Your task to perform on an android device: Search for hotels in Orlando Image 0: 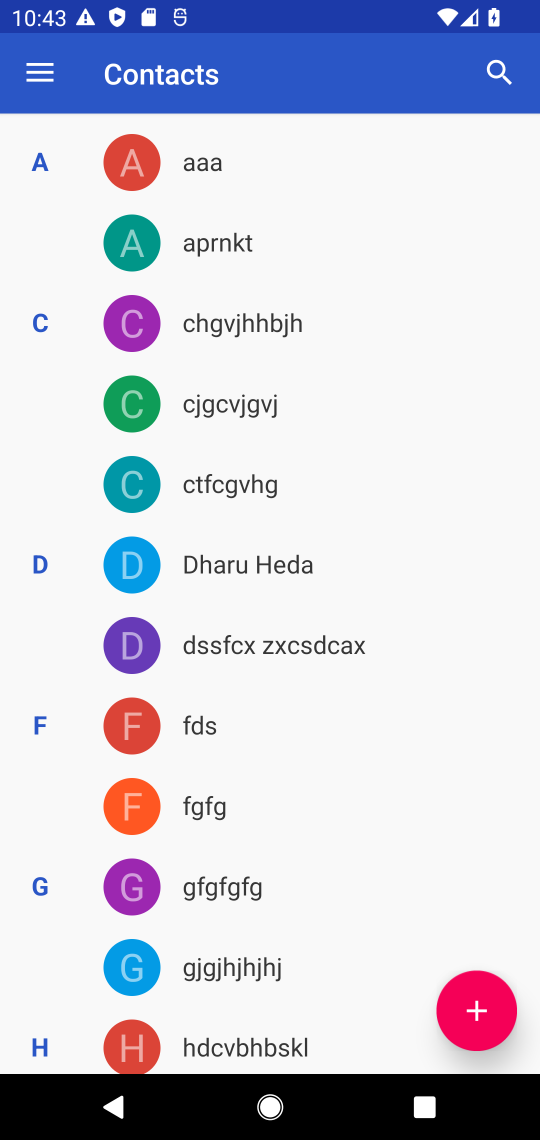
Step 0: press home button
Your task to perform on an android device: Search for hotels in Orlando Image 1: 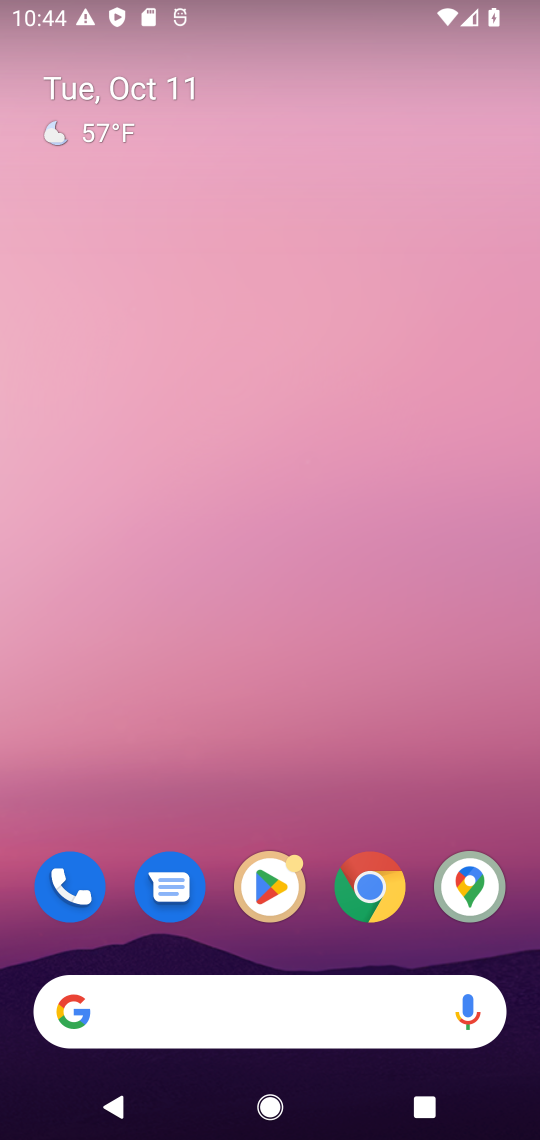
Step 1: click (165, 1020)
Your task to perform on an android device: Search for hotels in Orlando Image 2: 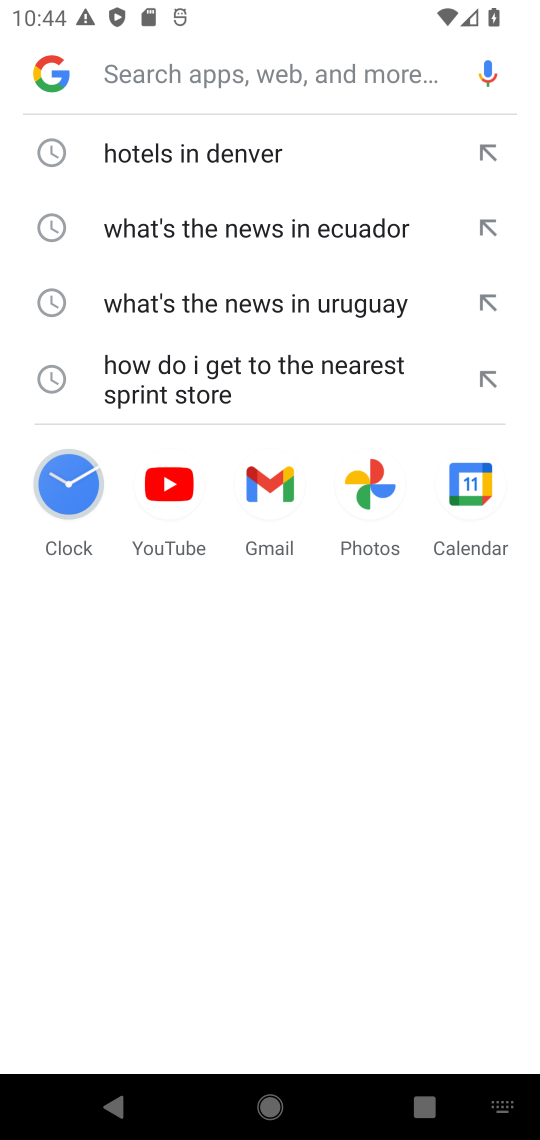
Step 2: type "hotels in Orlando"
Your task to perform on an android device: Search for hotels in Orlando Image 3: 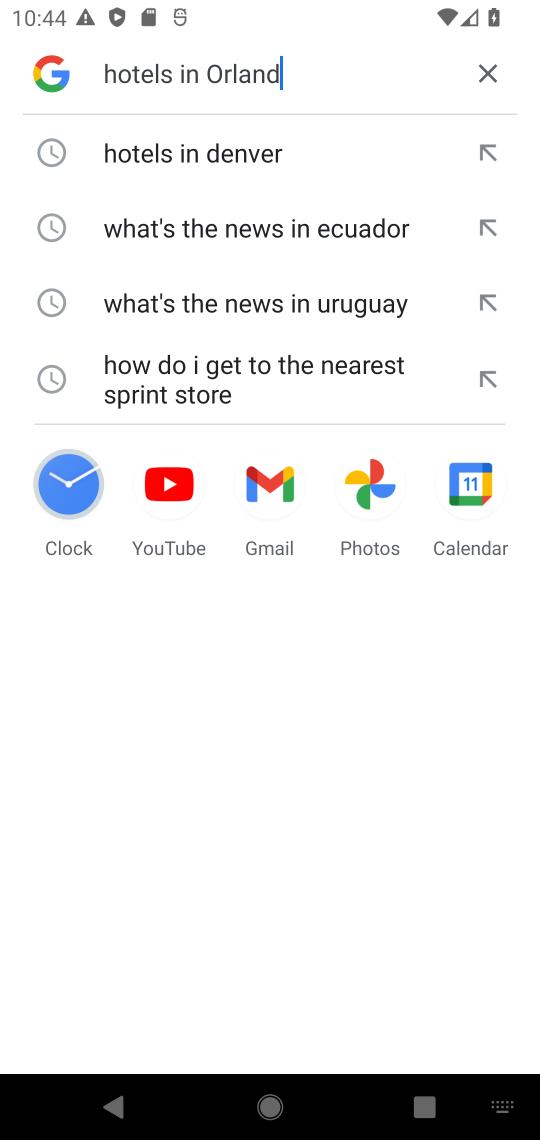
Step 3: press enter
Your task to perform on an android device: Search for hotels in Orlando Image 4: 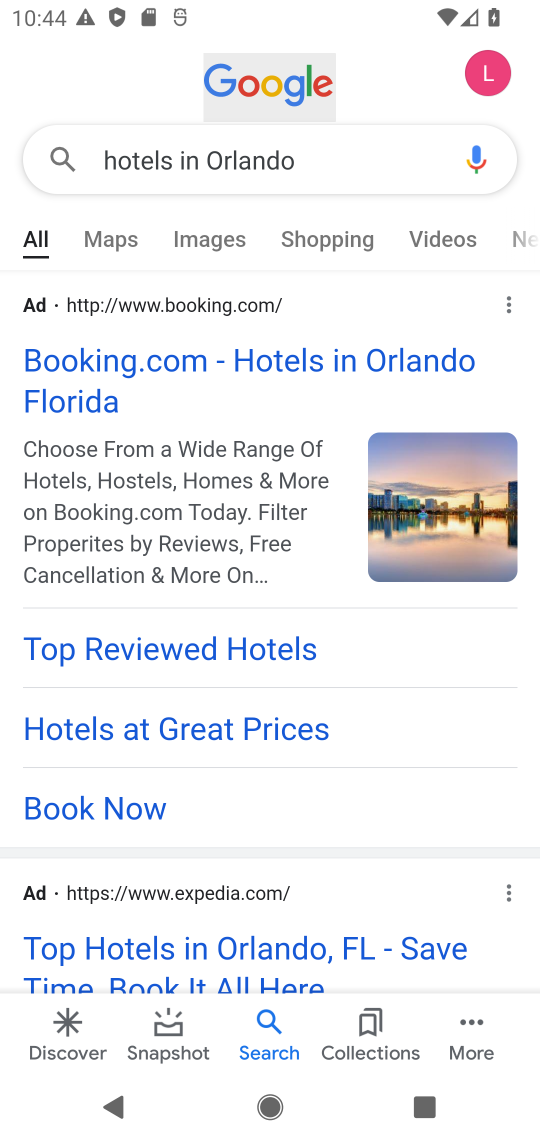
Step 4: click (260, 385)
Your task to perform on an android device: Search for hotels in Orlando Image 5: 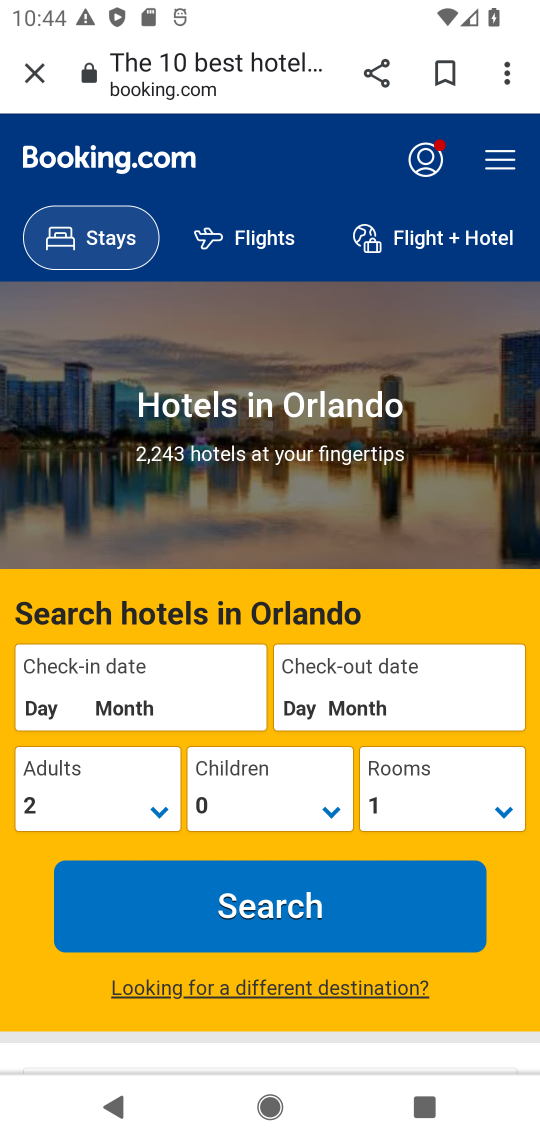
Step 5: click (401, 917)
Your task to perform on an android device: Search for hotels in Orlando Image 6: 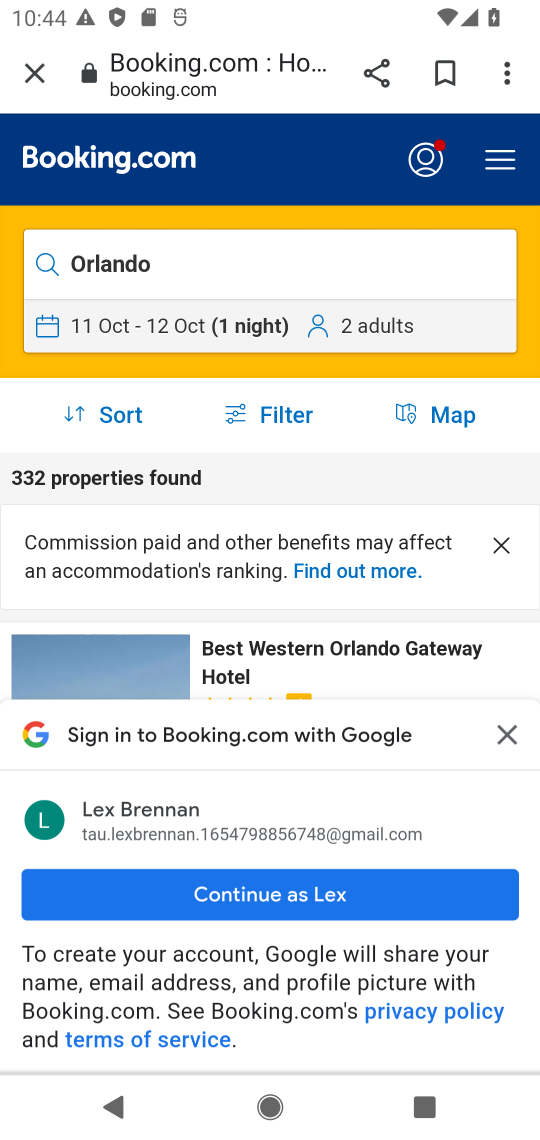
Step 6: click (508, 736)
Your task to perform on an android device: Search for hotels in Orlando Image 7: 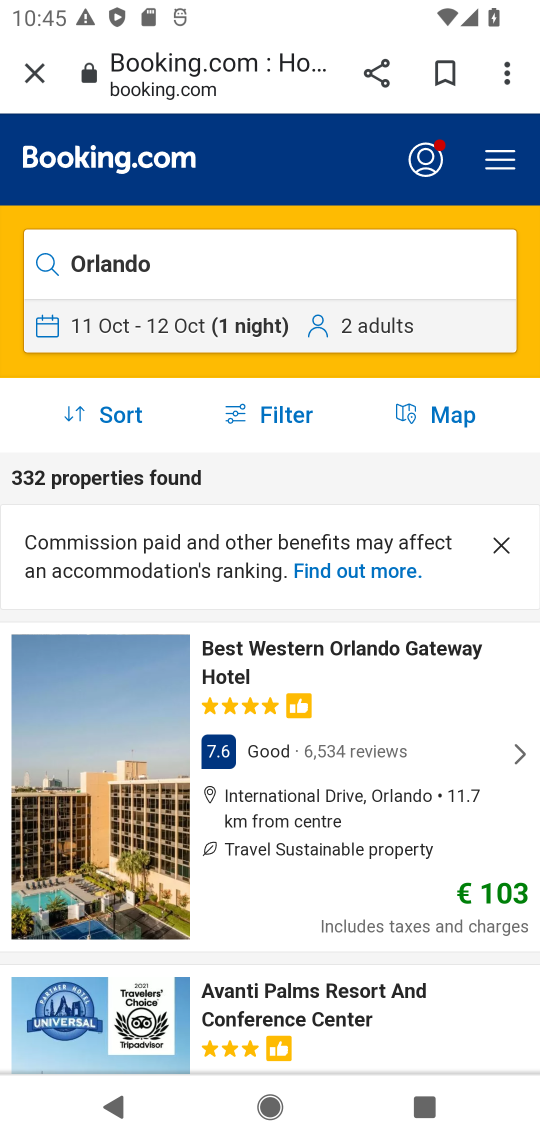
Step 7: task complete